Your task to perform on an android device: star an email in the gmail app Image 0: 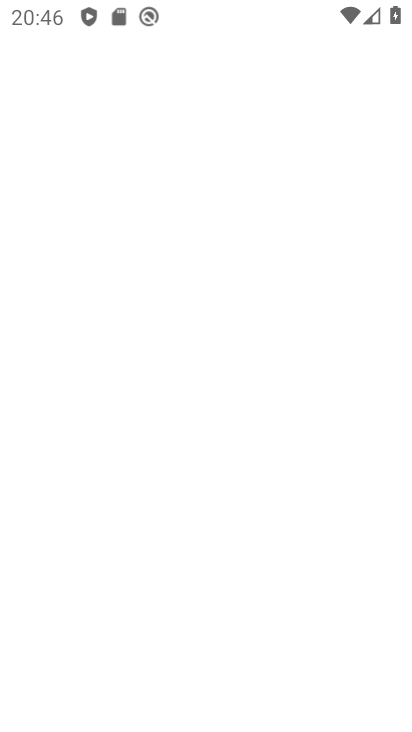
Step 0: drag from (358, 453) to (355, 141)
Your task to perform on an android device: star an email in the gmail app Image 1: 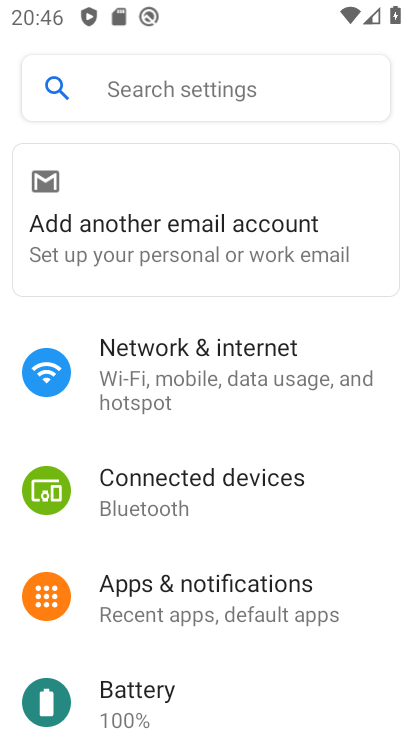
Step 1: press back button
Your task to perform on an android device: star an email in the gmail app Image 2: 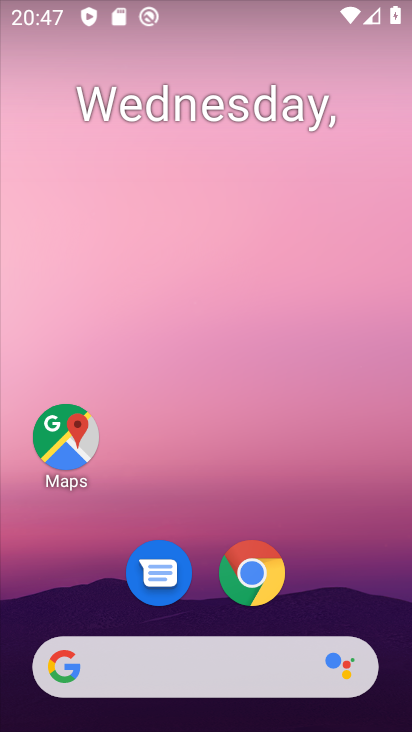
Step 2: drag from (317, 169) to (311, 104)
Your task to perform on an android device: star an email in the gmail app Image 3: 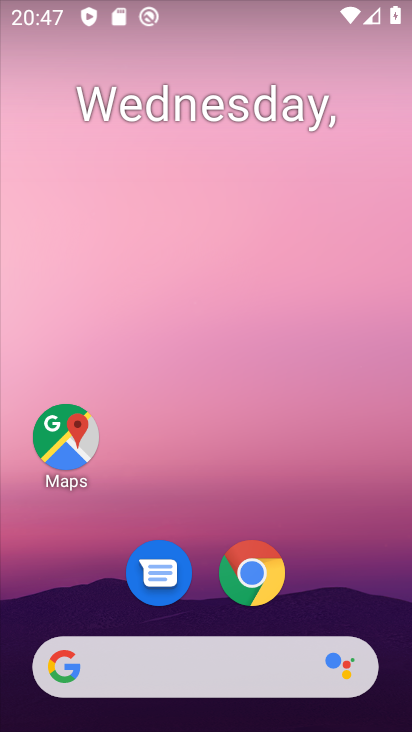
Step 3: click (398, 204)
Your task to perform on an android device: star an email in the gmail app Image 4: 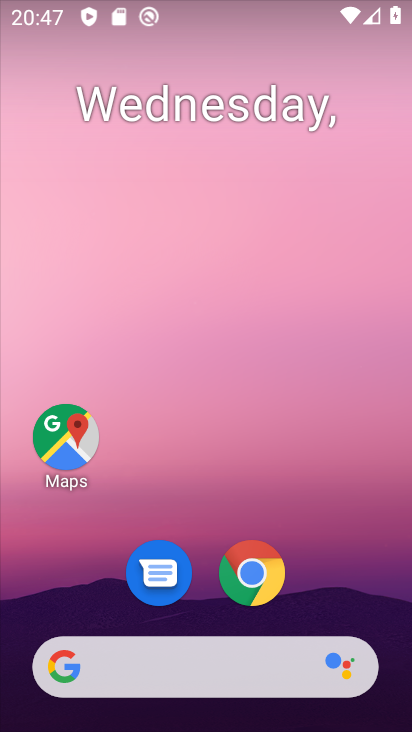
Step 4: drag from (340, 585) to (320, 162)
Your task to perform on an android device: star an email in the gmail app Image 5: 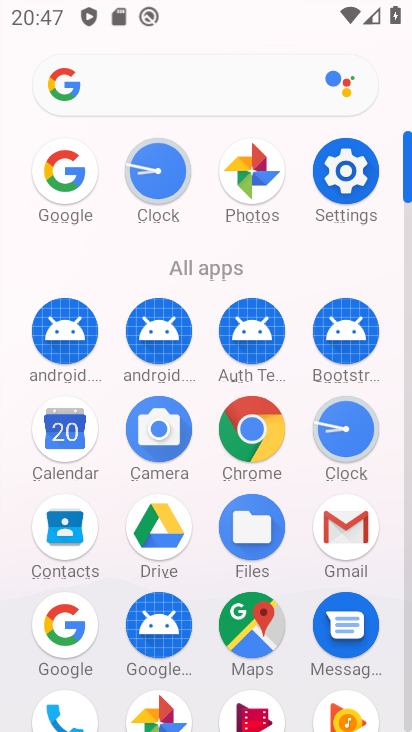
Step 5: click (337, 517)
Your task to perform on an android device: star an email in the gmail app Image 6: 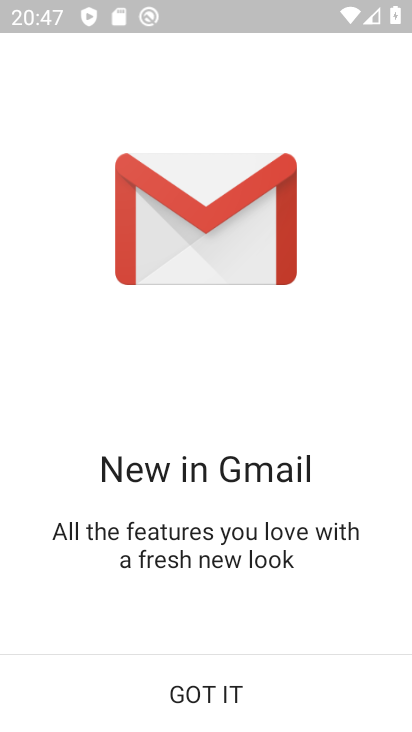
Step 6: click (215, 689)
Your task to perform on an android device: star an email in the gmail app Image 7: 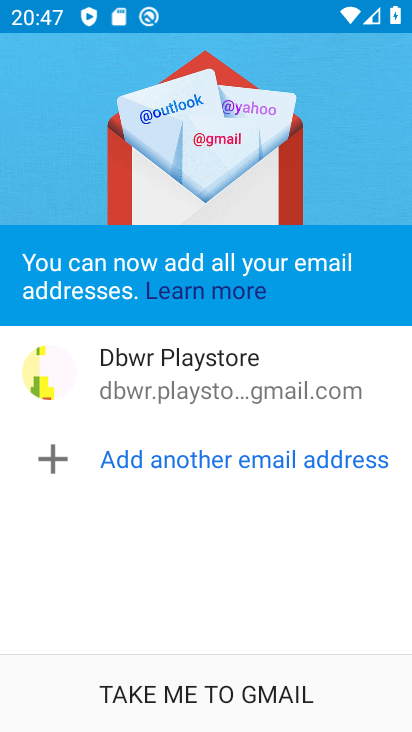
Step 7: click (218, 682)
Your task to perform on an android device: star an email in the gmail app Image 8: 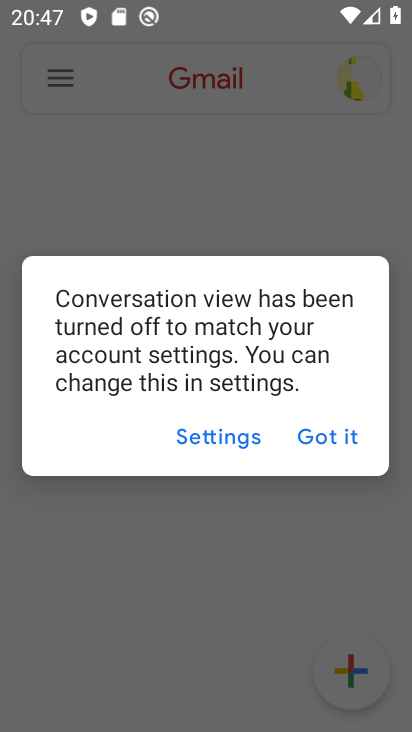
Step 8: click (299, 428)
Your task to perform on an android device: star an email in the gmail app Image 9: 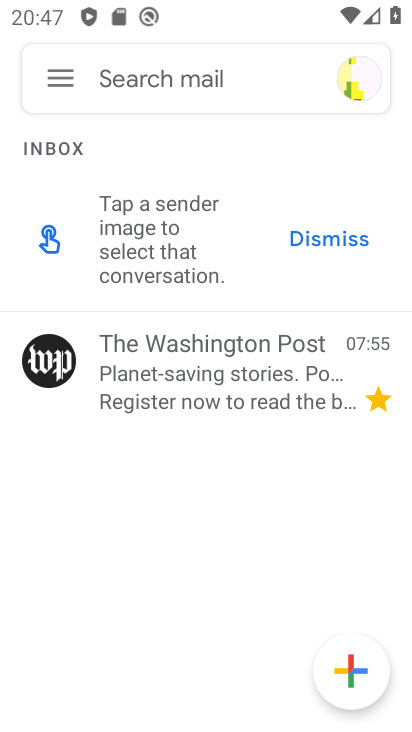
Step 9: click (49, 74)
Your task to perform on an android device: star an email in the gmail app Image 10: 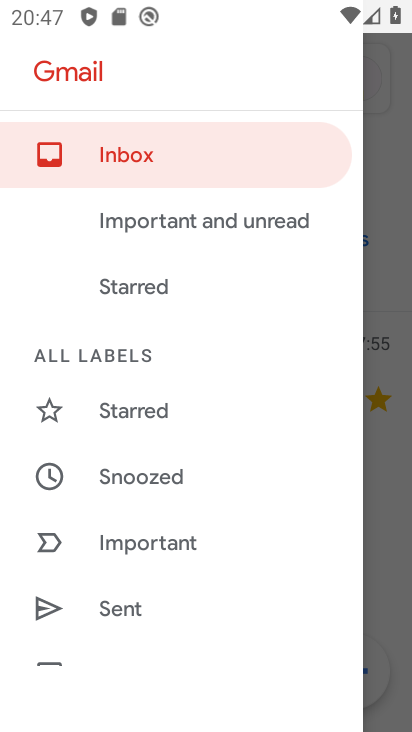
Step 10: click (91, 148)
Your task to perform on an android device: star an email in the gmail app Image 11: 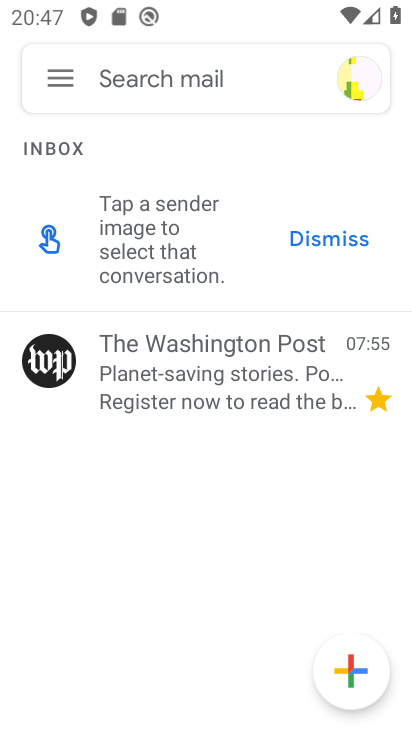
Step 11: click (58, 74)
Your task to perform on an android device: star an email in the gmail app Image 12: 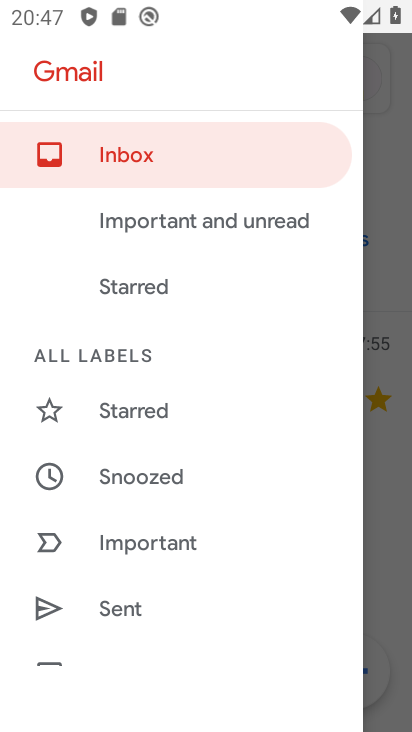
Step 12: task complete